Your task to perform on an android device: Go to CNN.com Image 0: 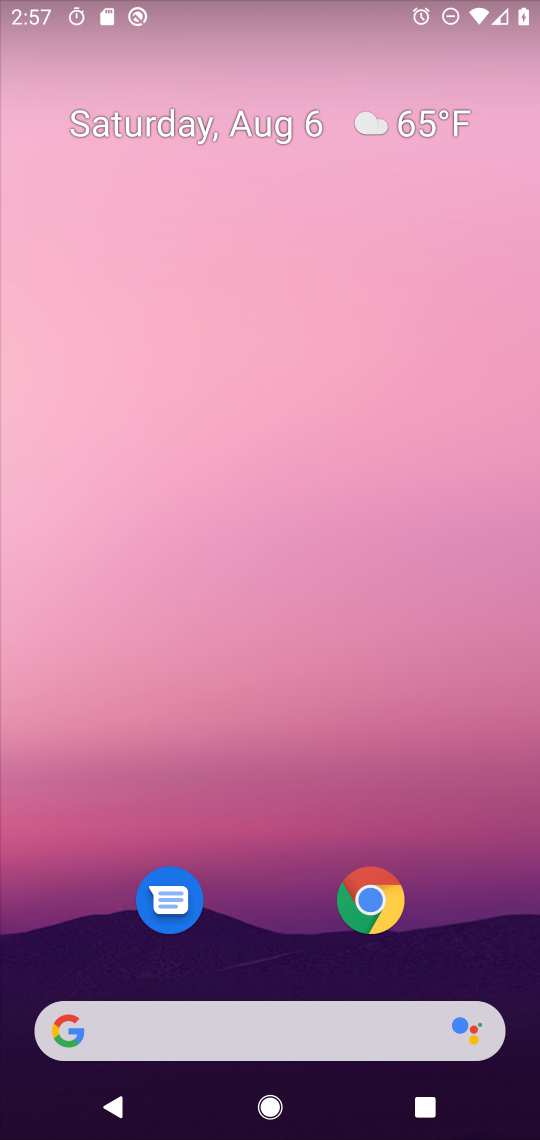
Step 0: click (377, 904)
Your task to perform on an android device: Go to CNN.com Image 1: 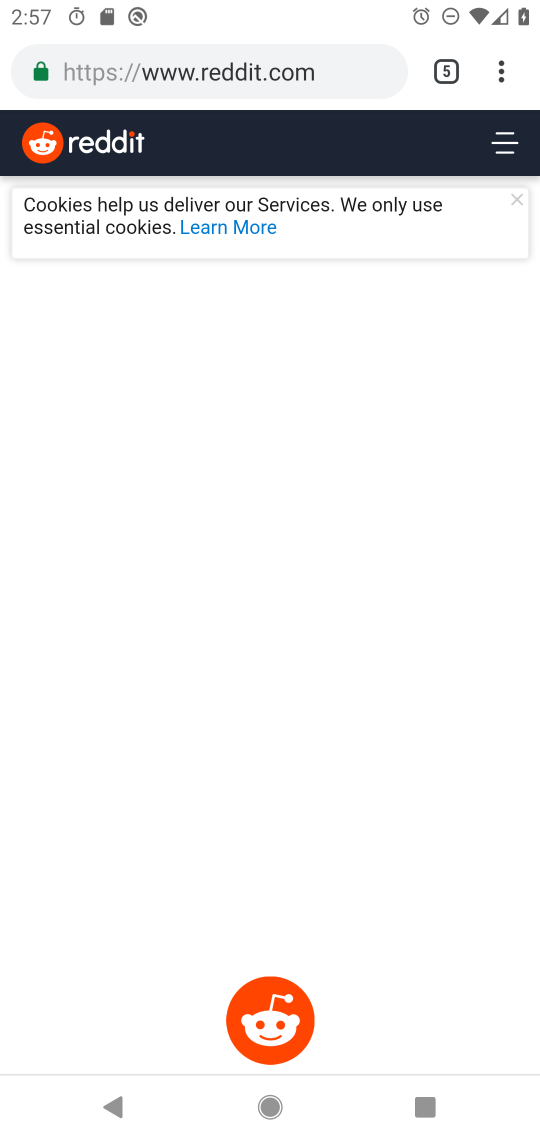
Step 1: click (500, 82)
Your task to perform on an android device: Go to CNN.com Image 2: 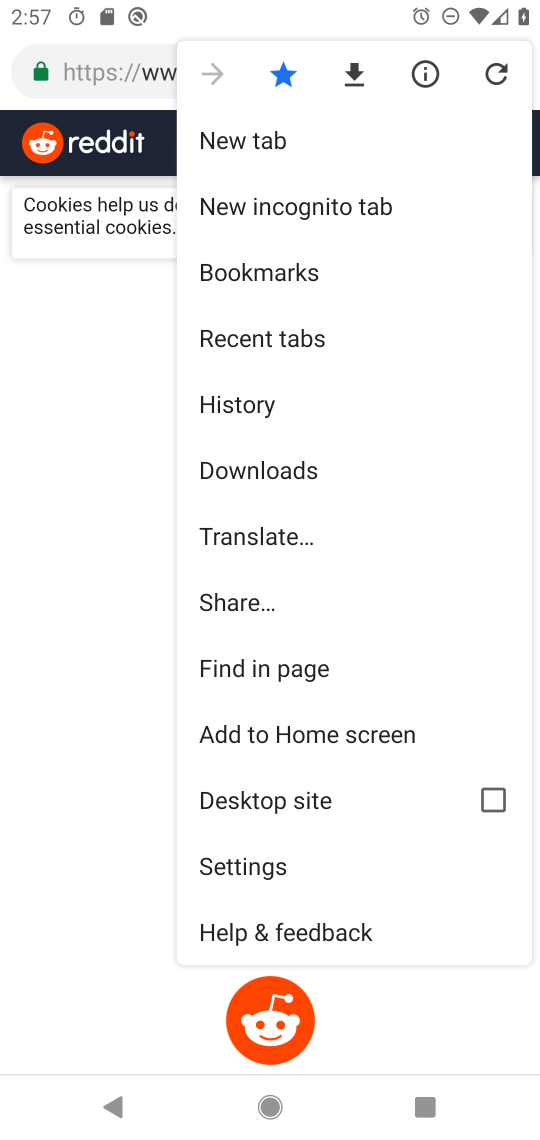
Step 2: click (253, 129)
Your task to perform on an android device: Go to CNN.com Image 3: 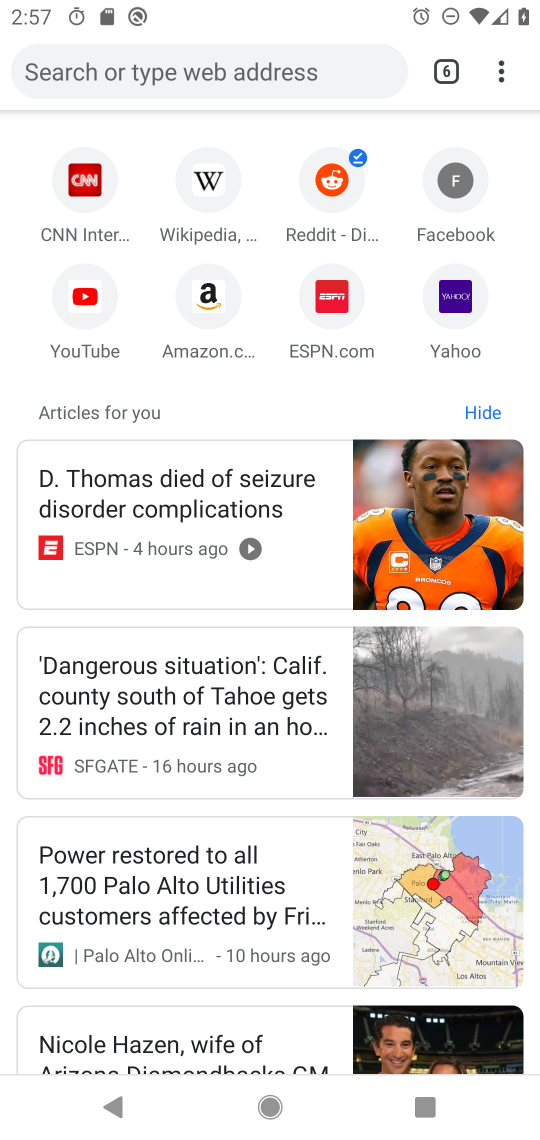
Step 3: click (90, 184)
Your task to perform on an android device: Go to CNN.com Image 4: 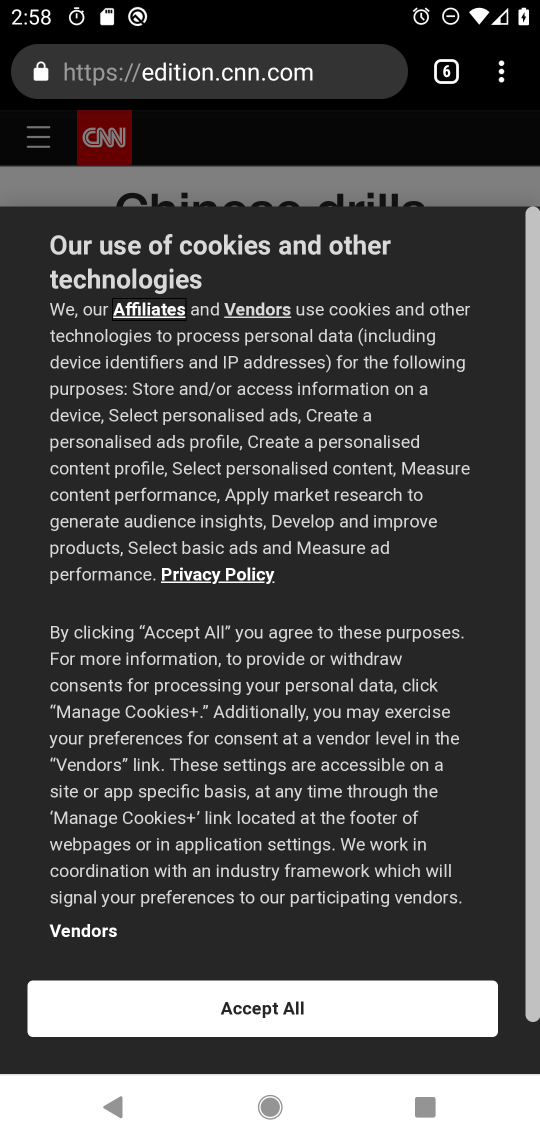
Step 4: task complete